Your task to perform on an android device: Toggle the flashlight Image 0: 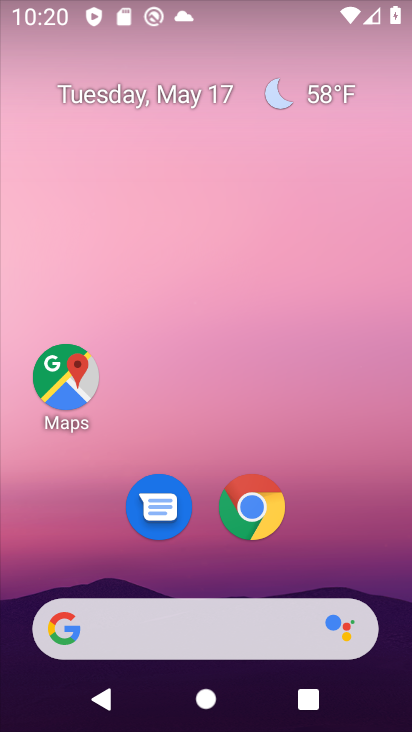
Step 0: drag from (175, 403) to (187, 24)
Your task to perform on an android device: Toggle the flashlight Image 1: 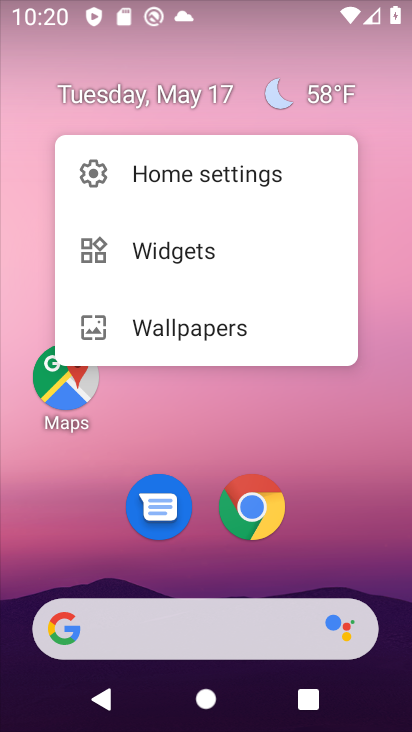
Step 1: click (361, 420)
Your task to perform on an android device: Toggle the flashlight Image 2: 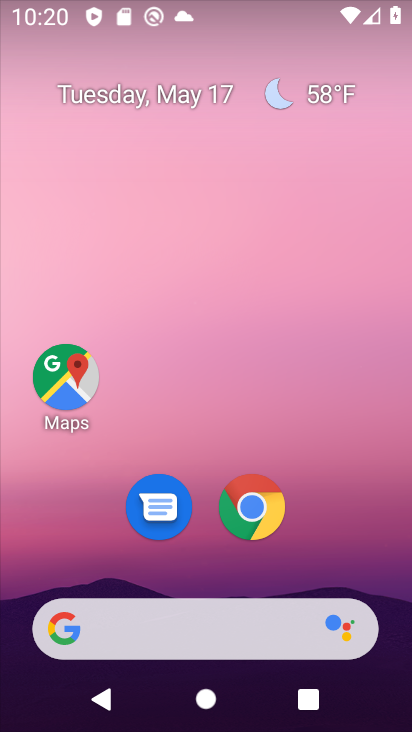
Step 2: drag from (328, 464) to (56, 94)
Your task to perform on an android device: Toggle the flashlight Image 3: 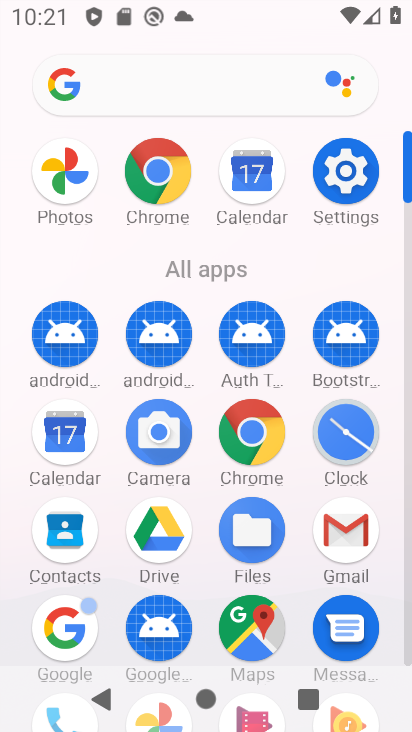
Step 3: click (333, 282)
Your task to perform on an android device: Toggle the flashlight Image 4: 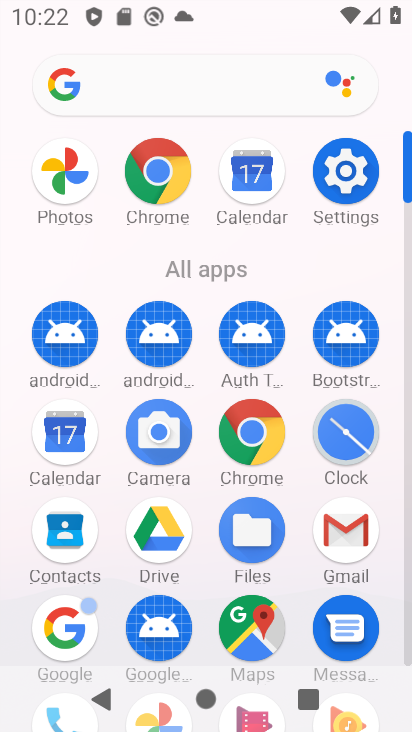
Step 4: click (340, 170)
Your task to perform on an android device: Toggle the flashlight Image 5: 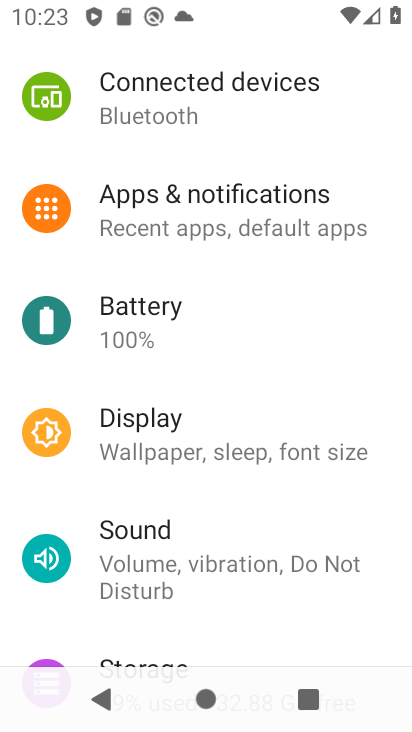
Step 5: click (200, 439)
Your task to perform on an android device: Toggle the flashlight Image 6: 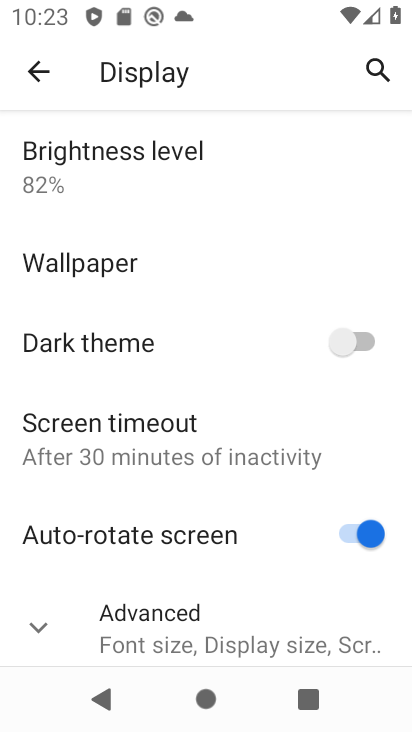
Step 6: task complete